Your task to perform on an android device: Open the calendar app, open the side menu, and click the "Day" option Image 0: 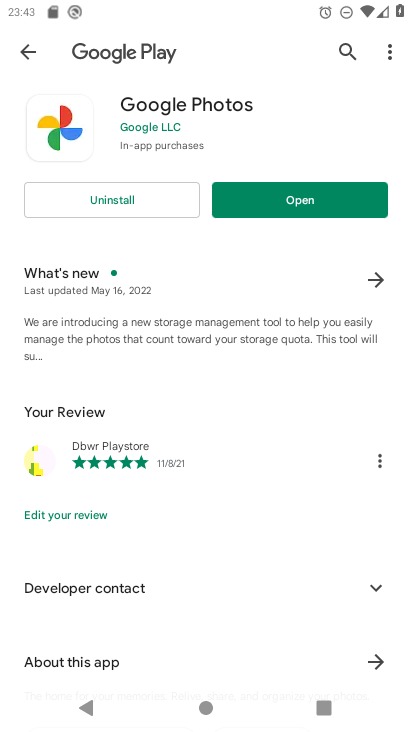
Step 0: press home button
Your task to perform on an android device: Open the calendar app, open the side menu, and click the "Day" option Image 1: 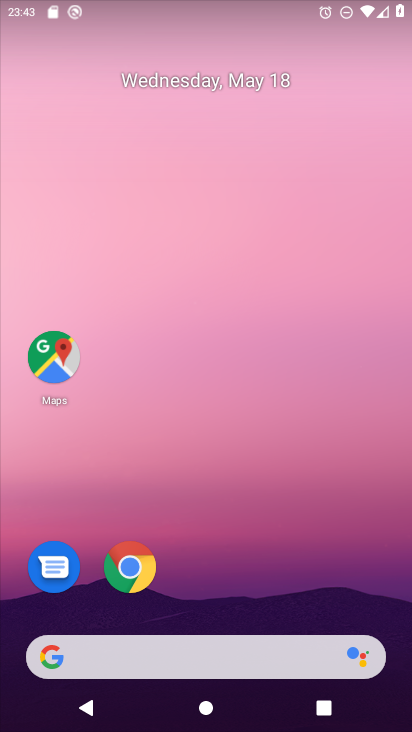
Step 1: drag from (222, 681) to (291, 338)
Your task to perform on an android device: Open the calendar app, open the side menu, and click the "Day" option Image 2: 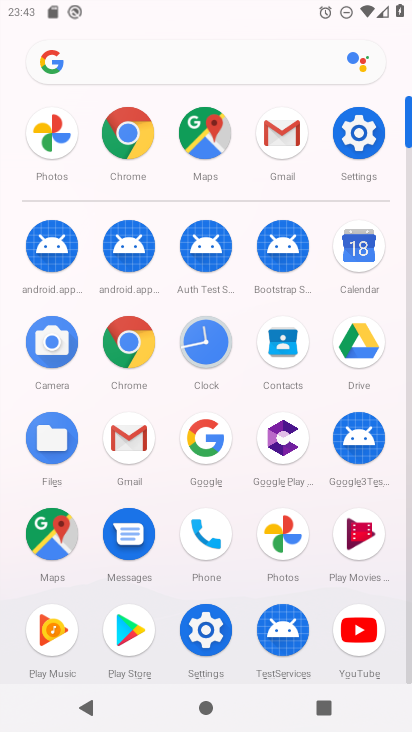
Step 2: click (342, 252)
Your task to perform on an android device: Open the calendar app, open the side menu, and click the "Day" option Image 3: 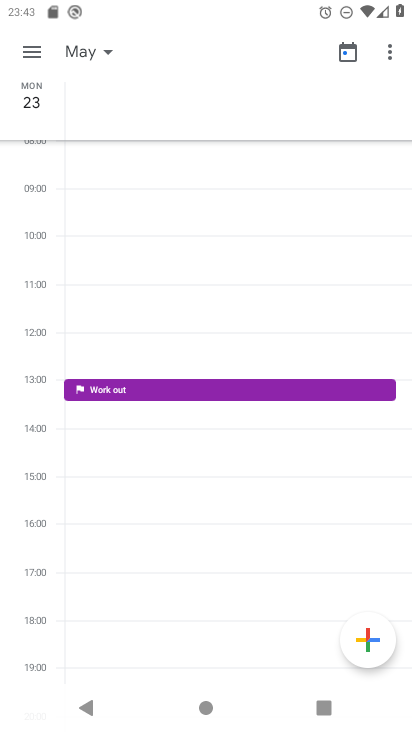
Step 3: click (46, 41)
Your task to perform on an android device: Open the calendar app, open the side menu, and click the "Day" option Image 4: 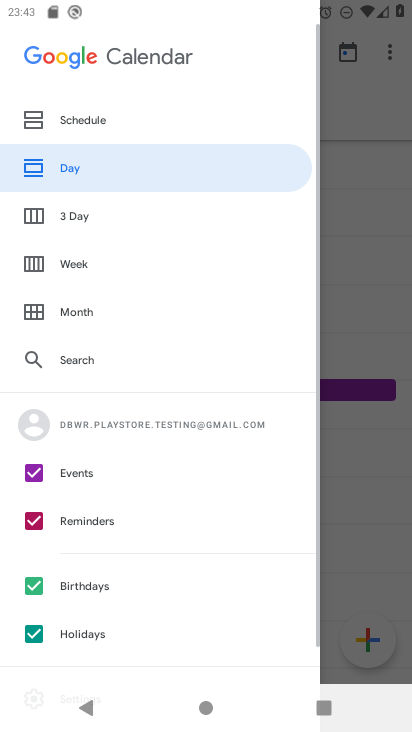
Step 4: click (100, 165)
Your task to perform on an android device: Open the calendar app, open the side menu, and click the "Day" option Image 5: 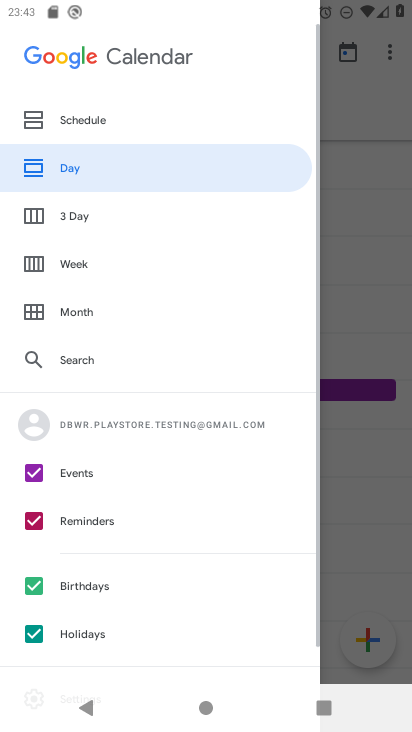
Step 5: click (100, 167)
Your task to perform on an android device: Open the calendar app, open the side menu, and click the "Day" option Image 6: 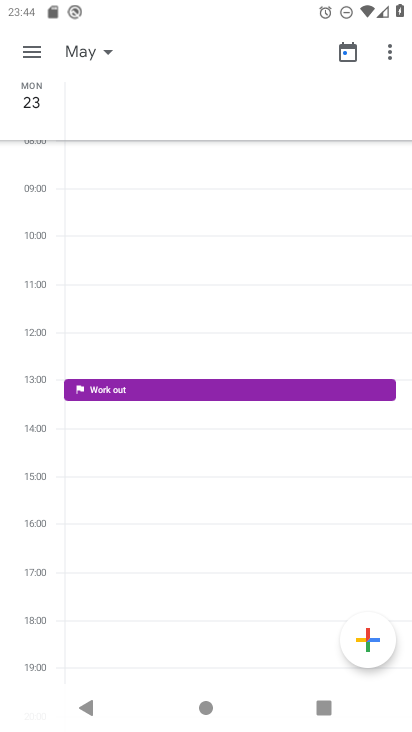
Step 6: task complete